Your task to perform on an android device: Search for sushi restaurants on Maps Image 0: 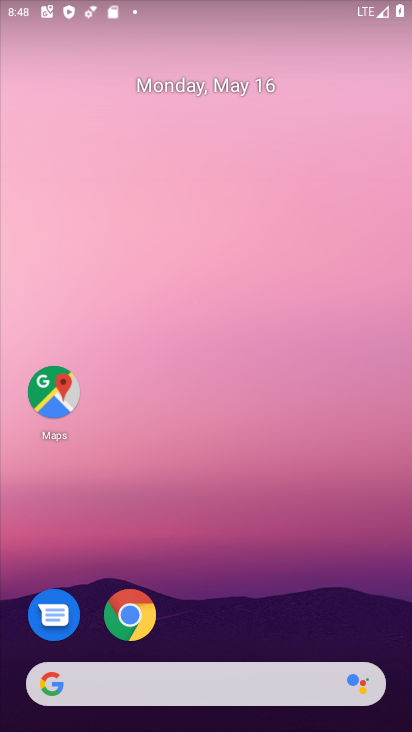
Step 0: drag from (207, 645) to (195, 238)
Your task to perform on an android device: Search for sushi restaurants on Maps Image 1: 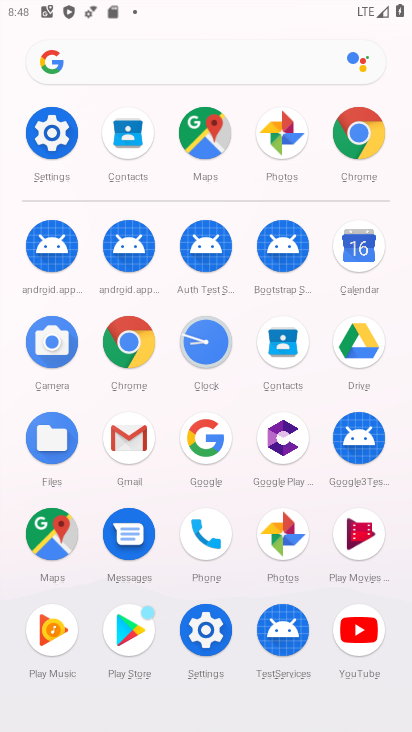
Step 1: click (222, 157)
Your task to perform on an android device: Search for sushi restaurants on Maps Image 2: 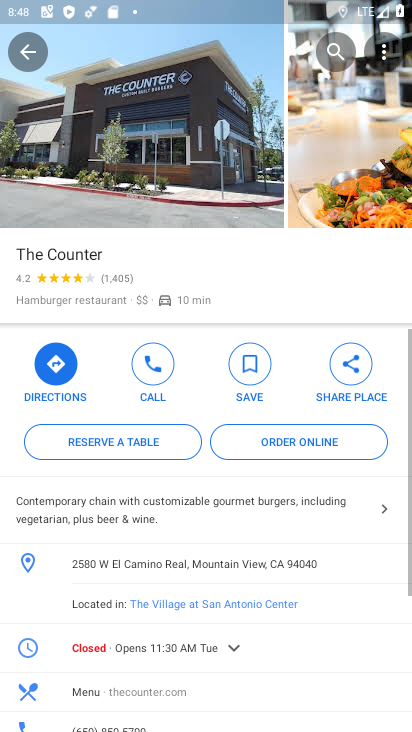
Step 2: drag from (163, 110) to (170, 430)
Your task to perform on an android device: Search for sushi restaurants on Maps Image 3: 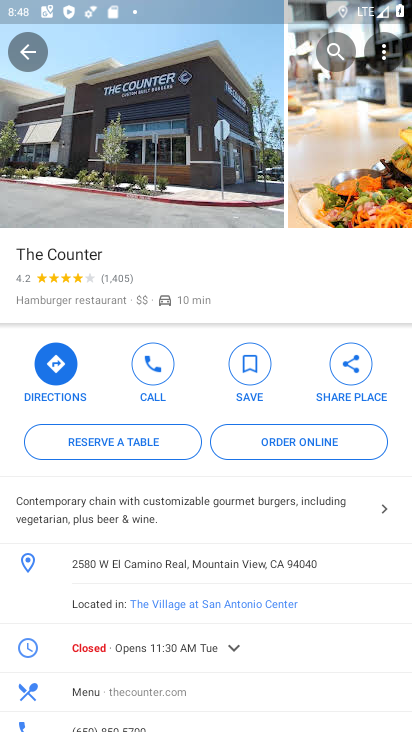
Step 3: press back button
Your task to perform on an android device: Search for sushi restaurants on Maps Image 4: 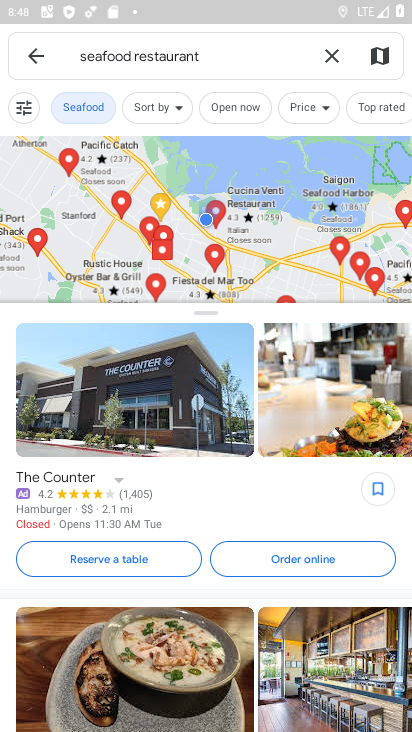
Step 4: click (322, 71)
Your task to perform on an android device: Search for sushi restaurants on Maps Image 5: 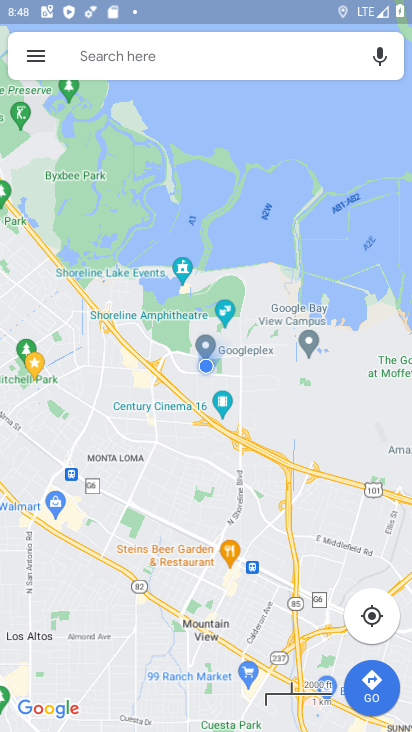
Step 5: click (291, 57)
Your task to perform on an android device: Search for sushi restaurants on Maps Image 6: 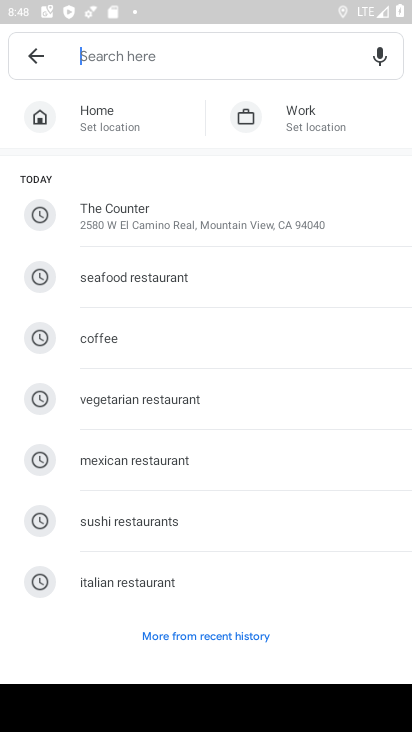
Step 6: click (163, 529)
Your task to perform on an android device: Search for sushi restaurants on Maps Image 7: 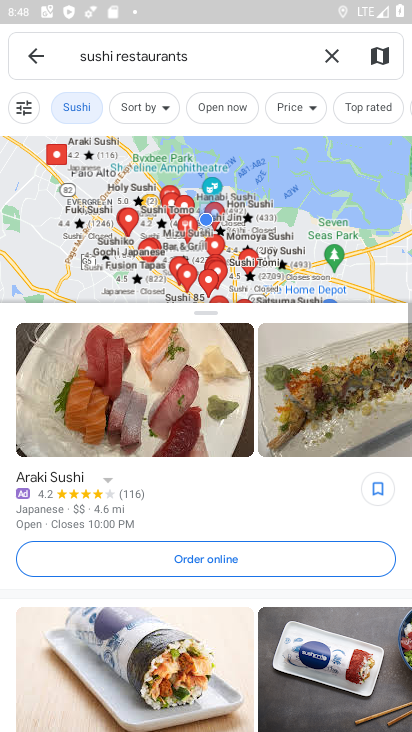
Step 7: task complete